Your task to perform on an android device: Show me the alarms in the clock app Image 0: 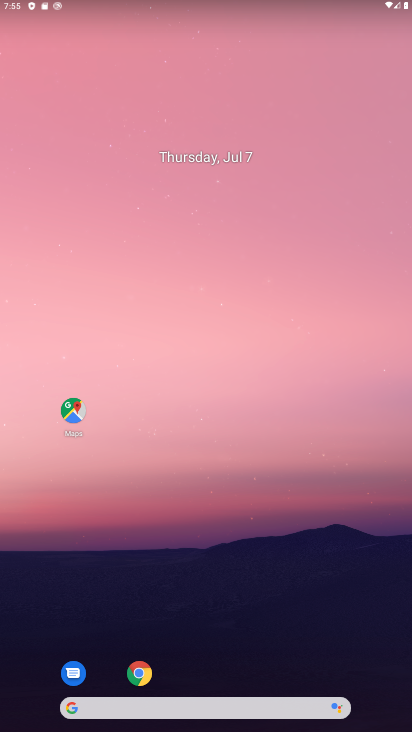
Step 0: drag from (215, 678) to (245, 229)
Your task to perform on an android device: Show me the alarms in the clock app Image 1: 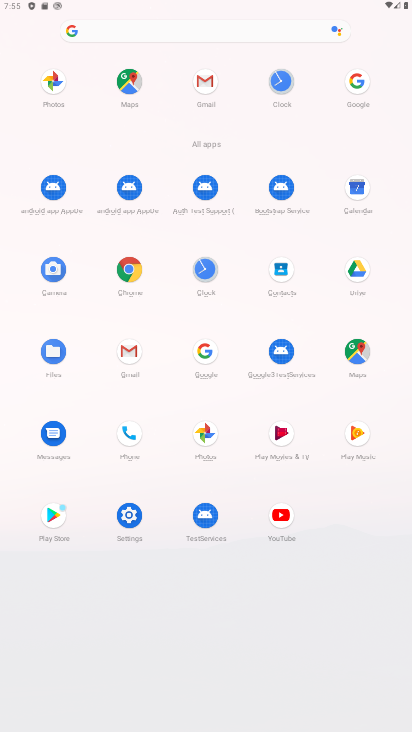
Step 1: click (203, 272)
Your task to perform on an android device: Show me the alarms in the clock app Image 2: 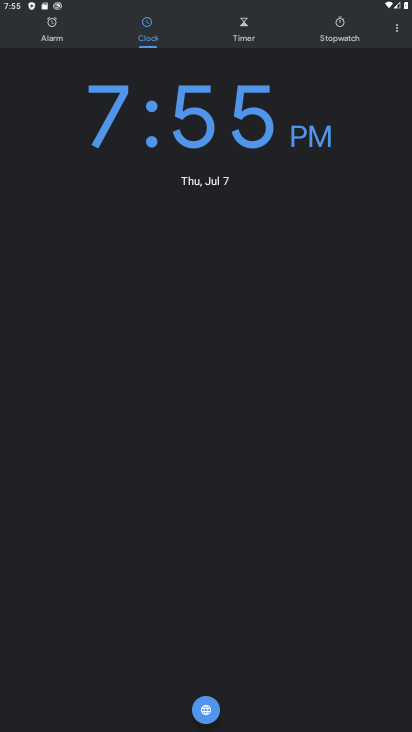
Step 2: click (52, 38)
Your task to perform on an android device: Show me the alarms in the clock app Image 3: 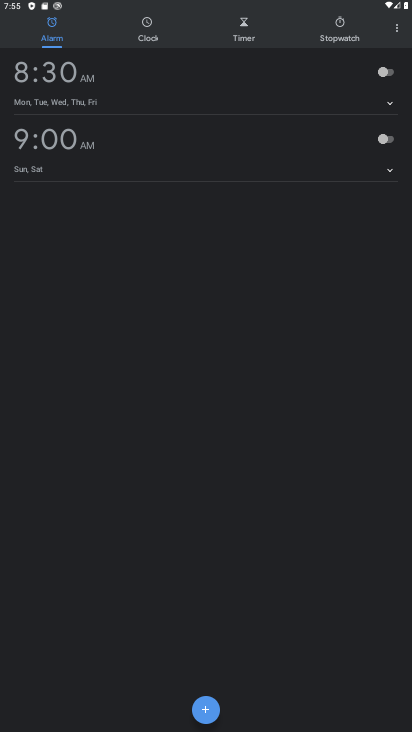
Step 3: task complete